Your task to perform on an android device: turn off priority inbox in the gmail app Image 0: 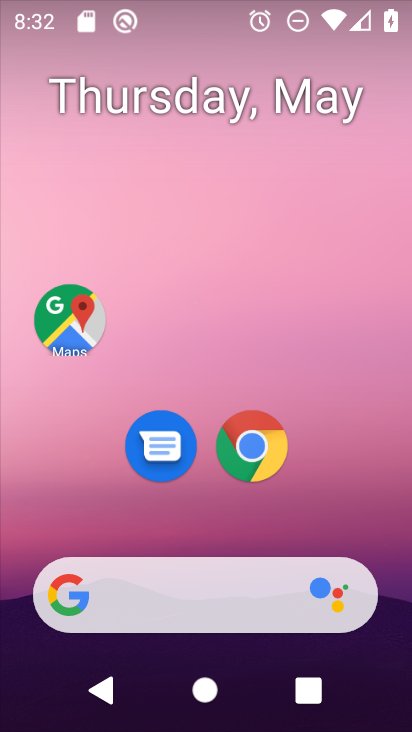
Step 0: drag from (377, 507) to (351, 89)
Your task to perform on an android device: turn off priority inbox in the gmail app Image 1: 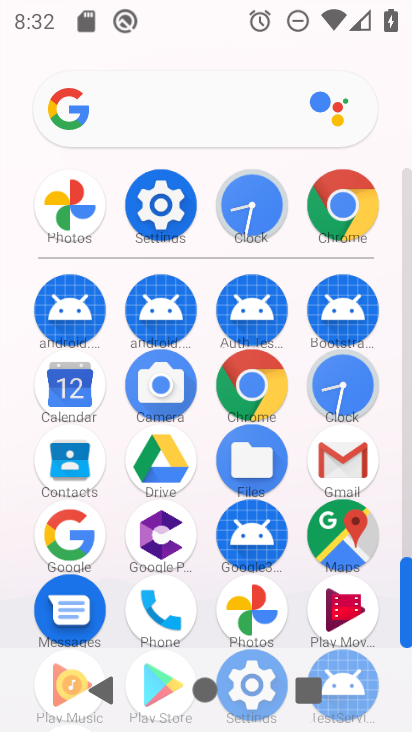
Step 1: drag from (379, 576) to (387, 300)
Your task to perform on an android device: turn off priority inbox in the gmail app Image 2: 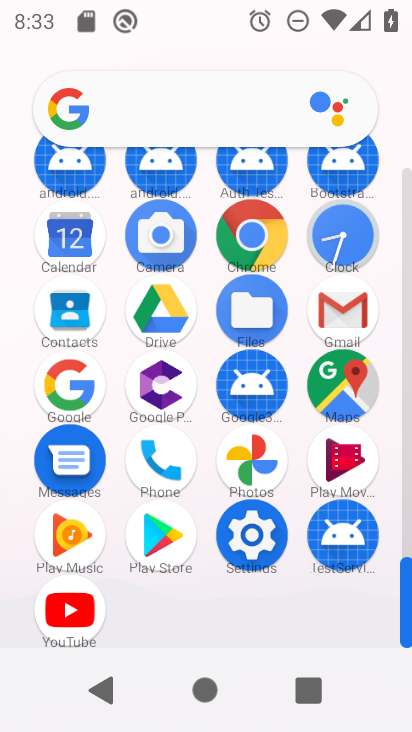
Step 2: click (342, 297)
Your task to perform on an android device: turn off priority inbox in the gmail app Image 3: 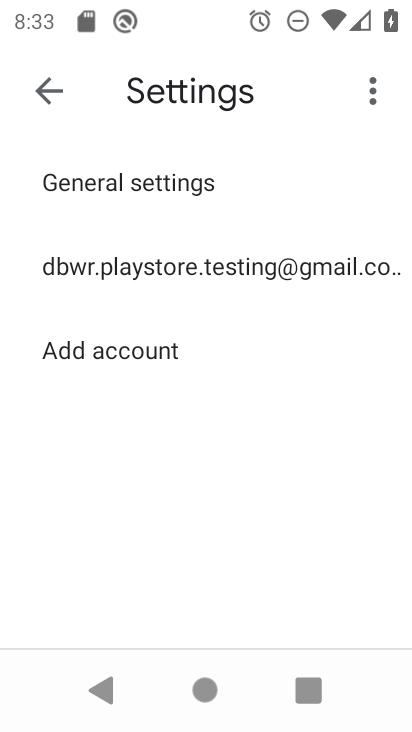
Step 3: click (257, 255)
Your task to perform on an android device: turn off priority inbox in the gmail app Image 4: 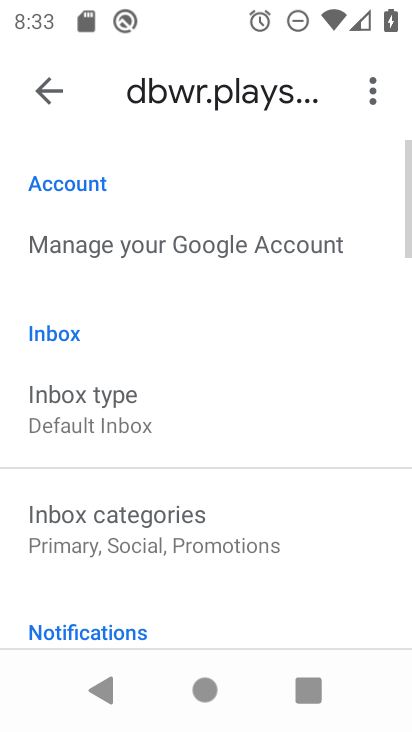
Step 4: drag from (252, 477) to (279, 199)
Your task to perform on an android device: turn off priority inbox in the gmail app Image 5: 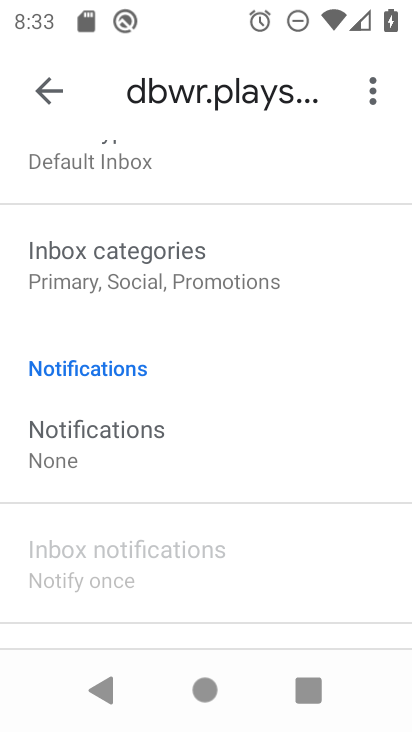
Step 5: drag from (261, 518) to (285, 253)
Your task to perform on an android device: turn off priority inbox in the gmail app Image 6: 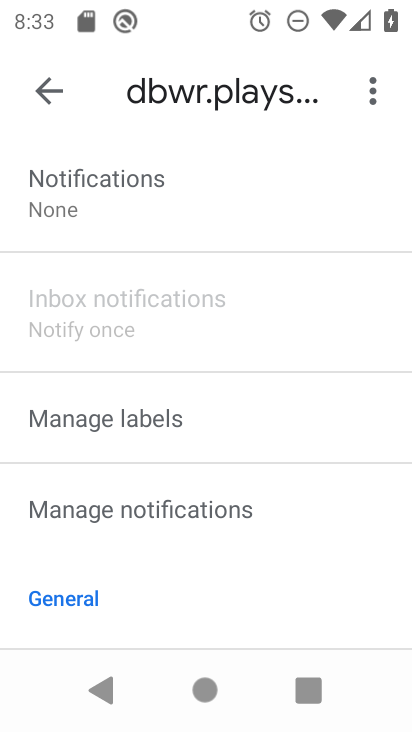
Step 6: drag from (275, 231) to (214, 579)
Your task to perform on an android device: turn off priority inbox in the gmail app Image 7: 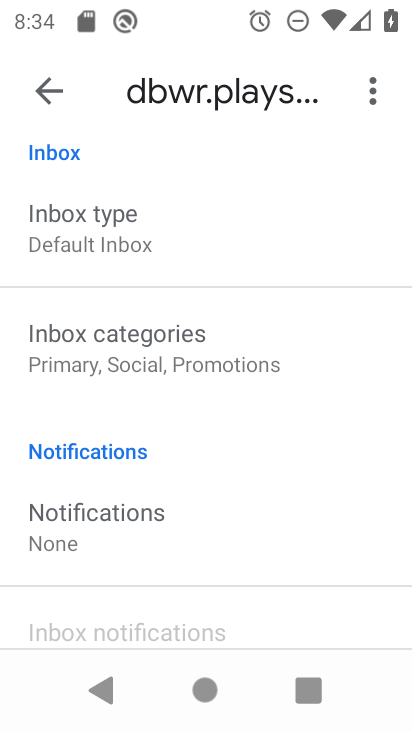
Step 7: click (129, 216)
Your task to perform on an android device: turn off priority inbox in the gmail app Image 8: 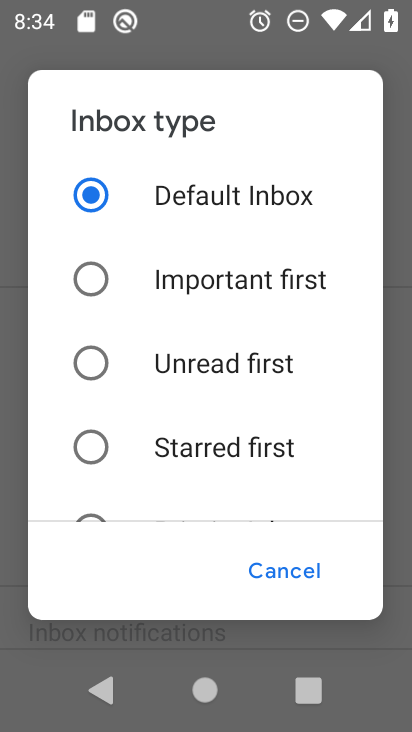
Step 8: drag from (125, 485) to (142, 155)
Your task to perform on an android device: turn off priority inbox in the gmail app Image 9: 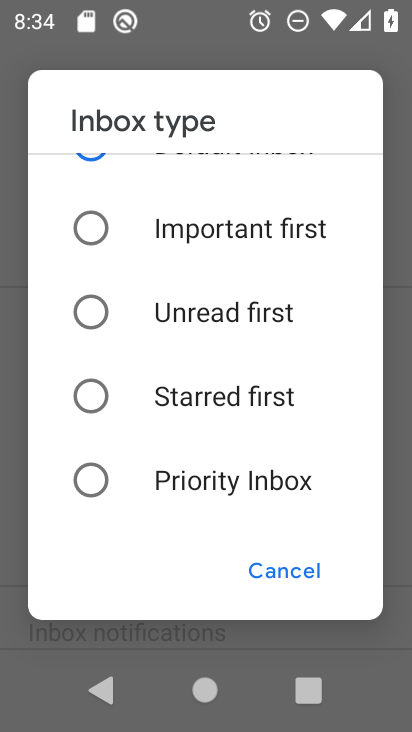
Step 9: click (90, 474)
Your task to perform on an android device: turn off priority inbox in the gmail app Image 10: 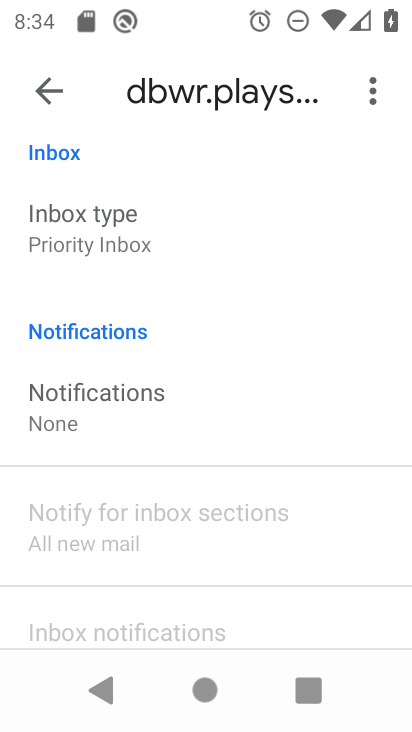
Step 10: task complete